Your task to perform on an android device: install app "Move to iOS" Image 0: 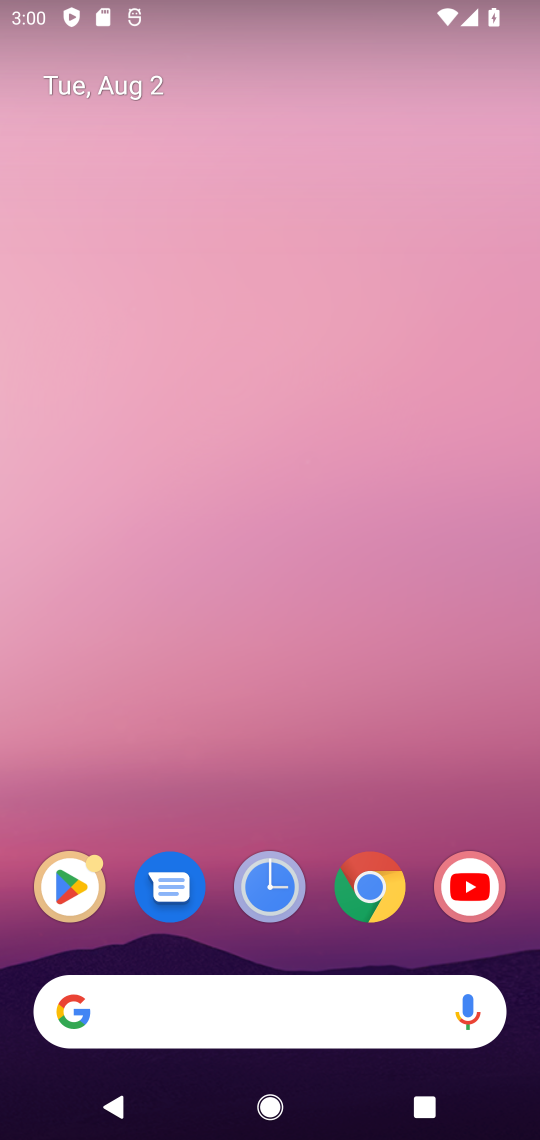
Step 0: click (62, 888)
Your task to perform on an android device: install app "Move to iOS" Image 1: 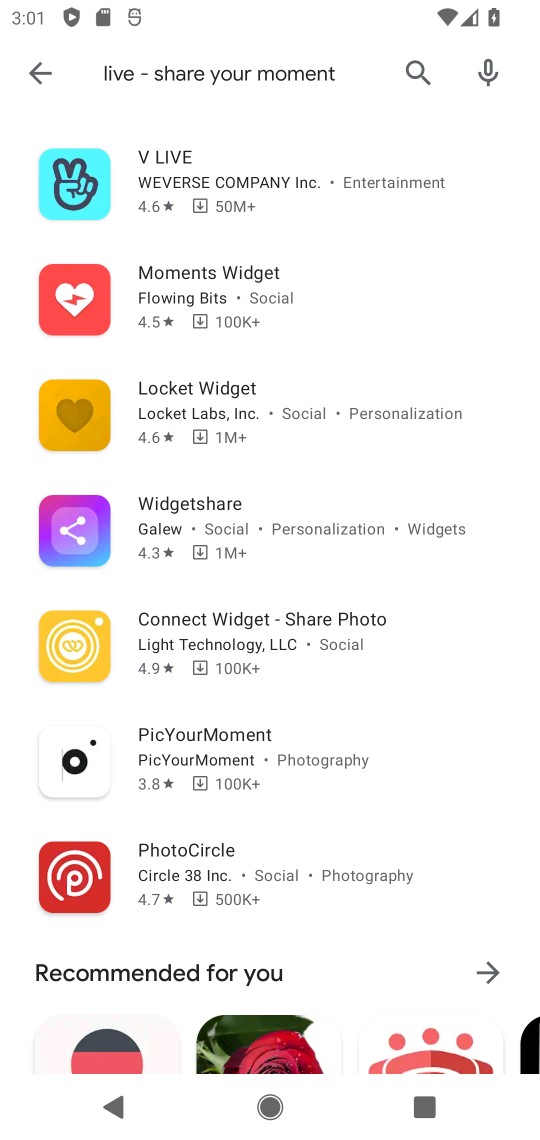
Step 1: click (22, 65)
Your task to perform on an android device: install app "Move to iOS" Image 2: 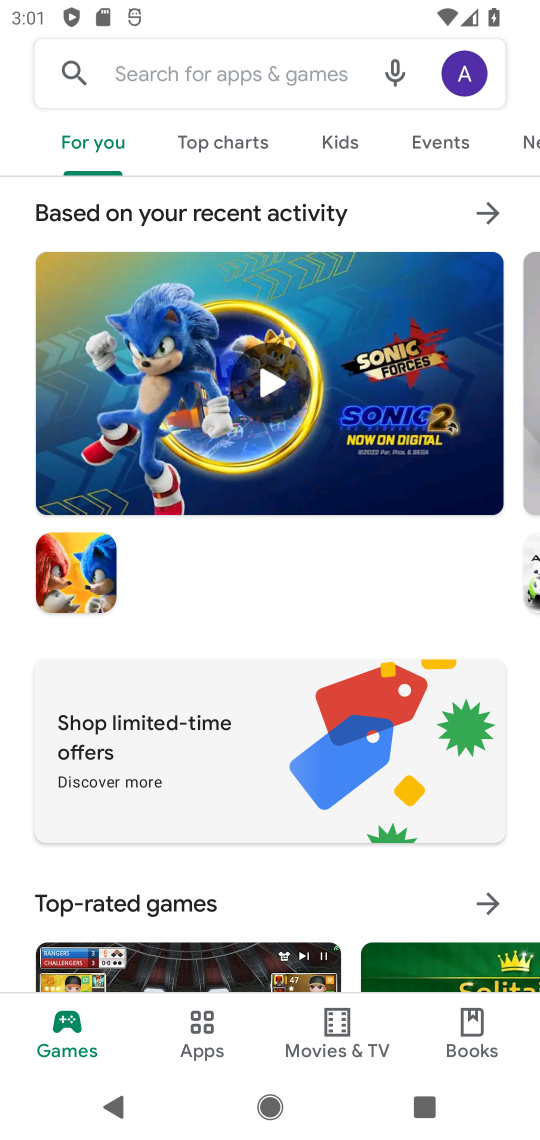
Step 2: click (156, 73)
Your task to perform on an android device: install app "Move to iOS" Image 3: 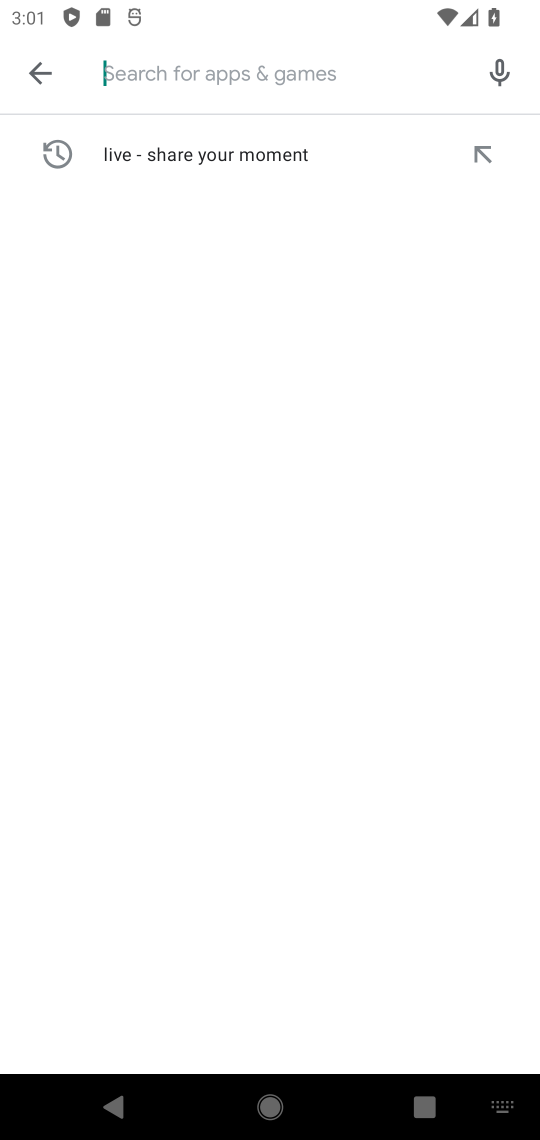
Step 3: type "Move to iOS"
Your task to perform on an android device: install app "Move to iOS" Image 4: 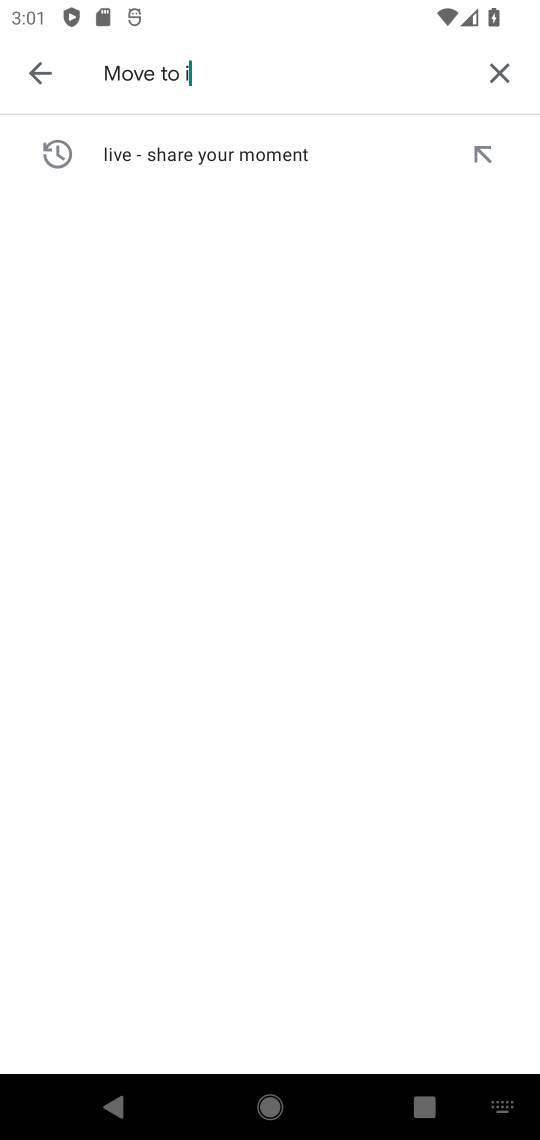
Step 4: type ""
Your task to perform on an android device: install app "Move to iOS" Image 5: 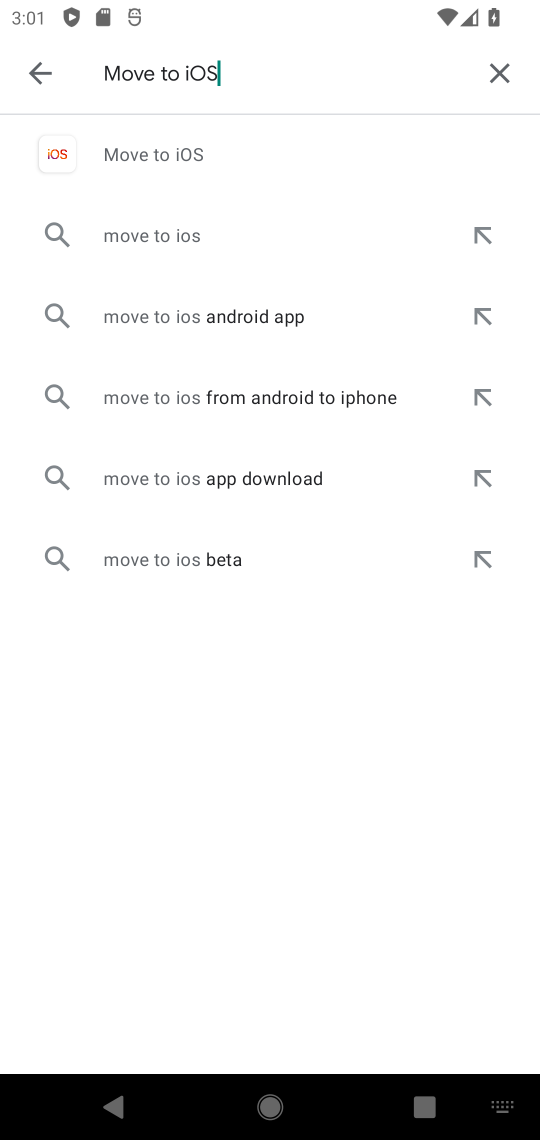
Step 5: click (174, 154)
Your task to perform on an android device: install app "Move to iOS" Image 6: 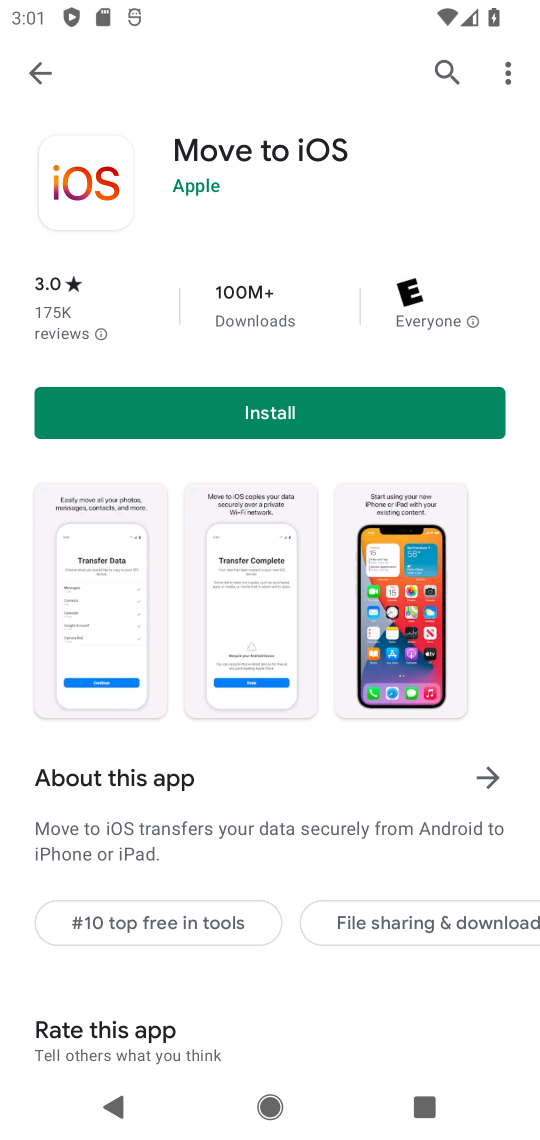
Step 6: click (328, 417)
Your task to perform on an android device: install app "Move to iOS" Image 7: 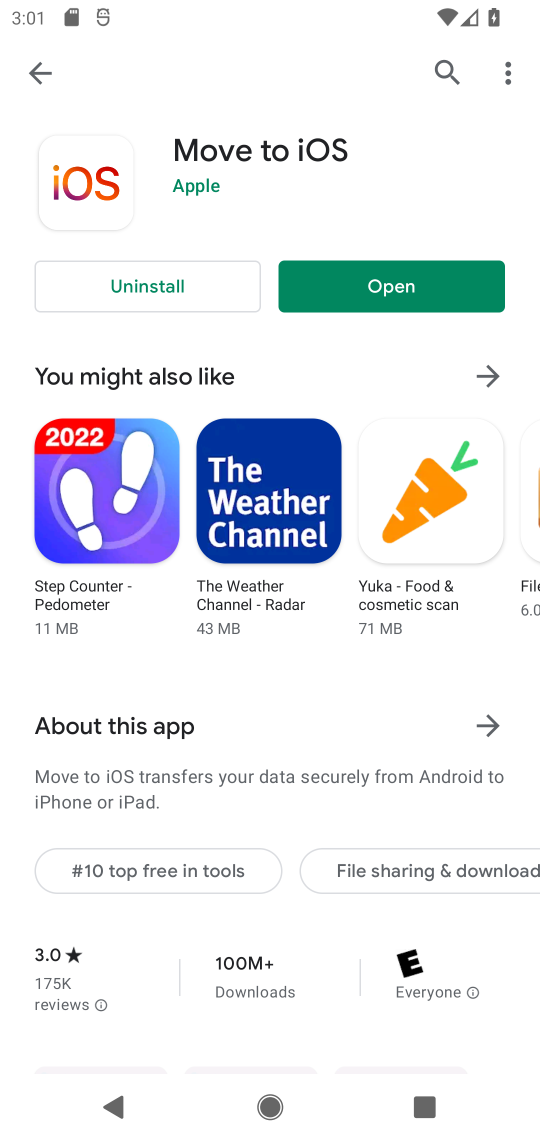
Step 7: task complete